Your task to perform on an android device: install app "Microsoft Authenticator" Image 0: 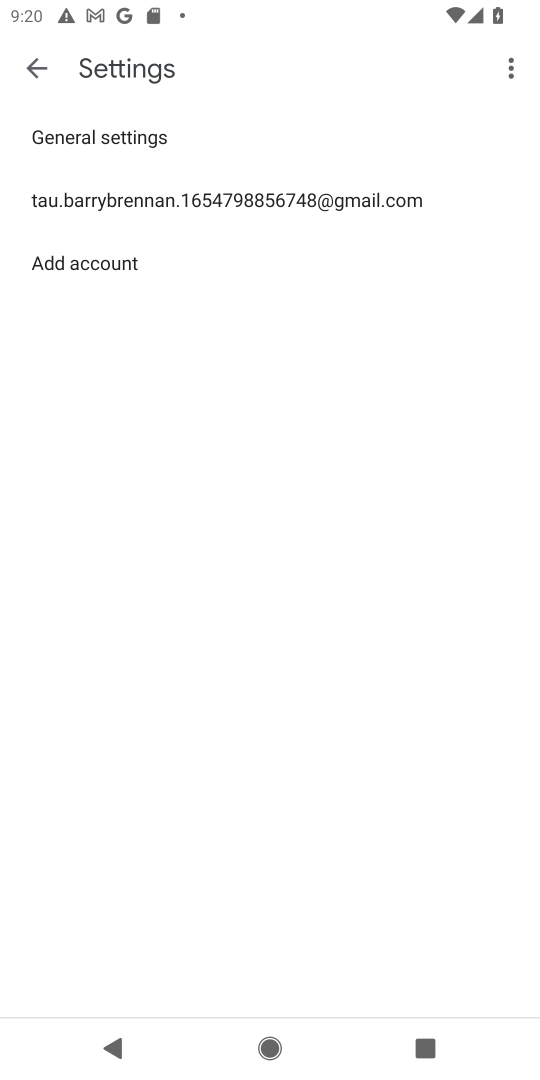
Step 0: press home button
Your task to perform on an android device: install app "Microsoft Authenticator" Image 1: 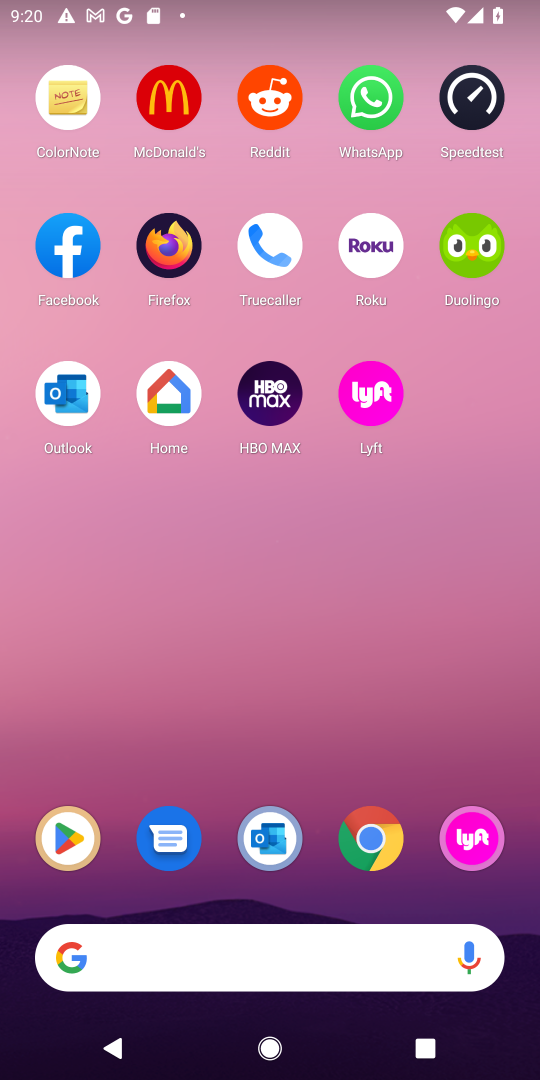
Step 1: drag from (294, 583) to (323, 147)
Your task to perform on an android device: install app "Microsoft Authenticator" Image 2: 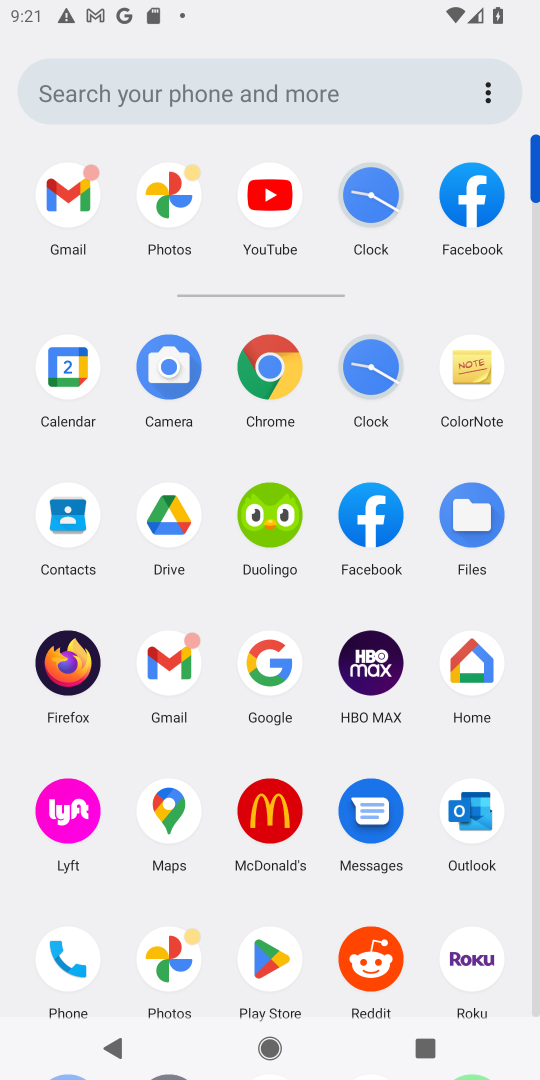
Step 2: click (270, 955)
Your task to perform on an android device: install app "Microsoft Authenticator" Image 3: 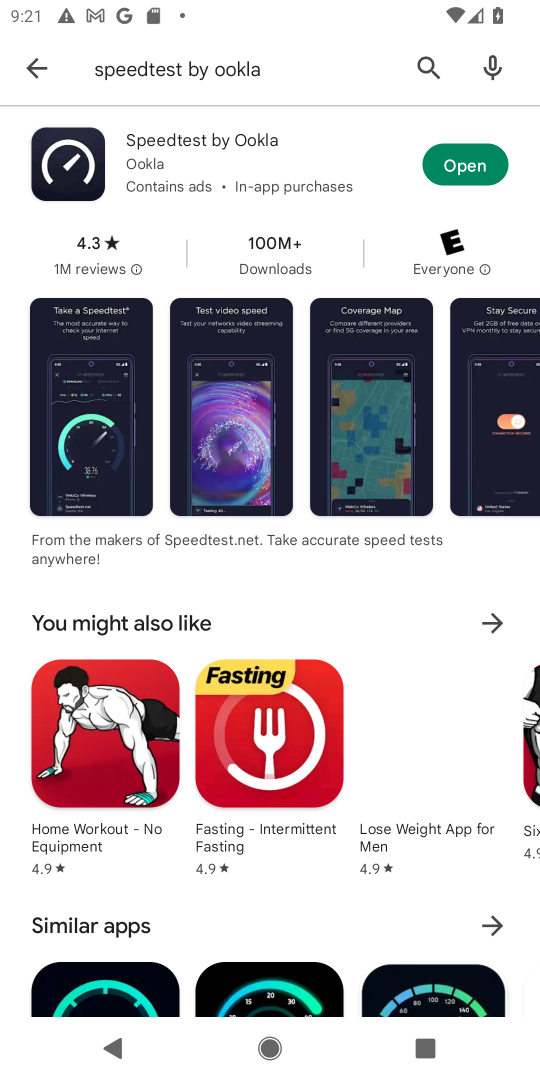
Step 3: click (426, 60)
Your task to perform on an android device: install app "Microsoft Authenticator" Image 4: 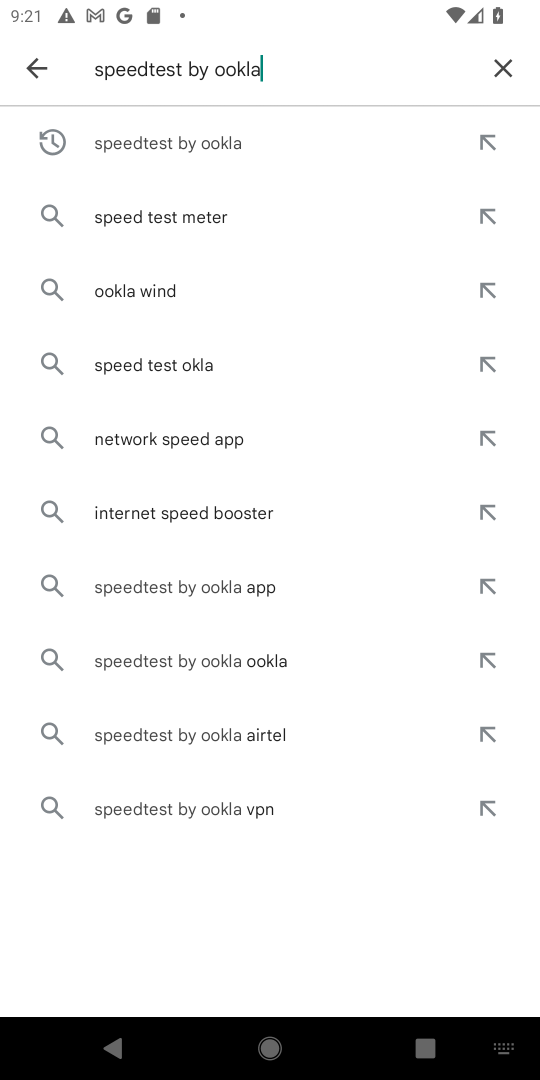
Step 4: click (497, 67)
Your task to perform on an android device: install app "Microsoft Authenticator" Image 5: 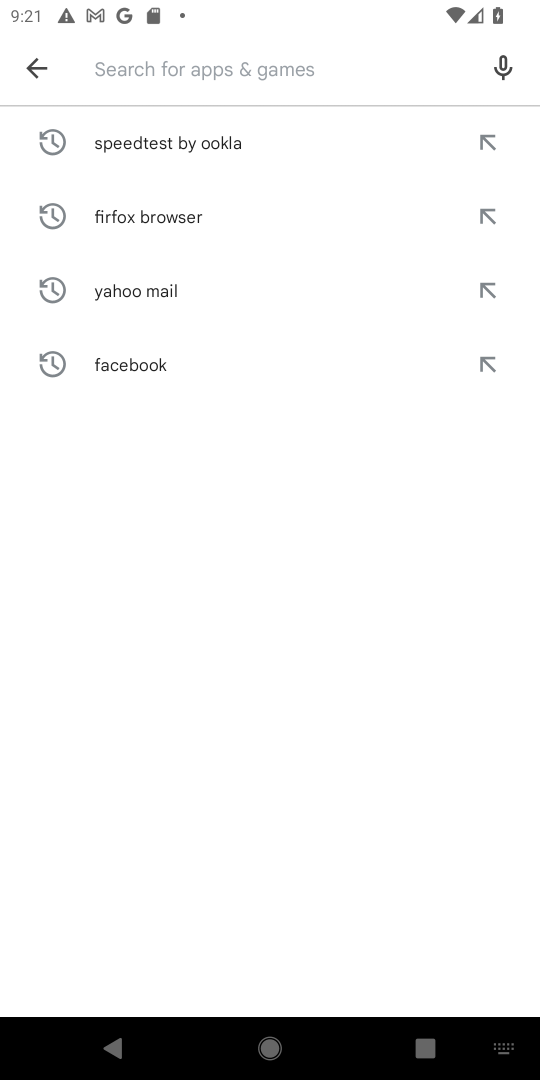
Step 5: click (346, 74)
Your task to perform on an android device: install app "Microsoft Authenticator" Image 6: 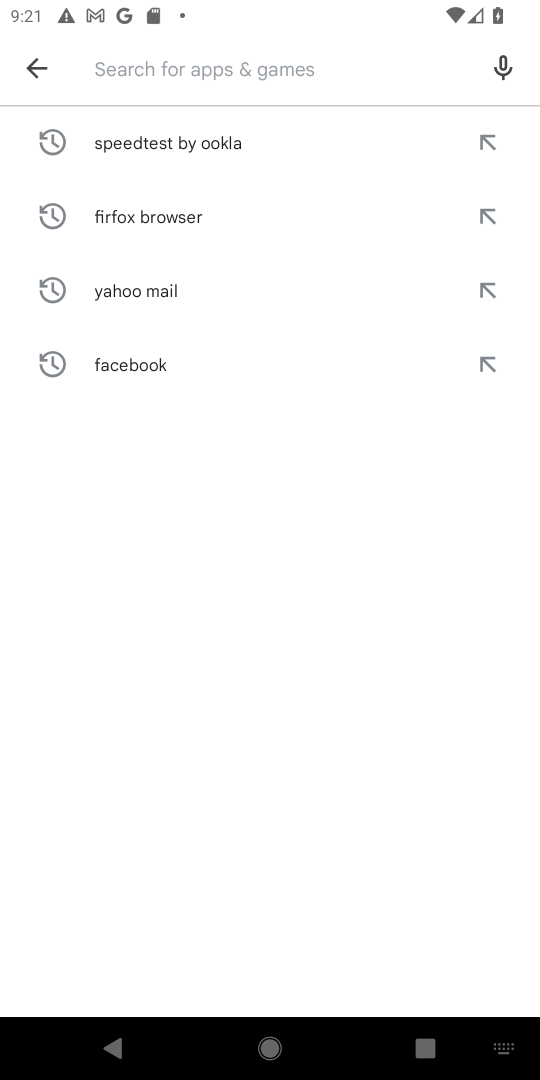
Step 6: type "microsoft authenticator "
Your task to perform on an android device: install app "Microsoft Authenticator" Image 7: 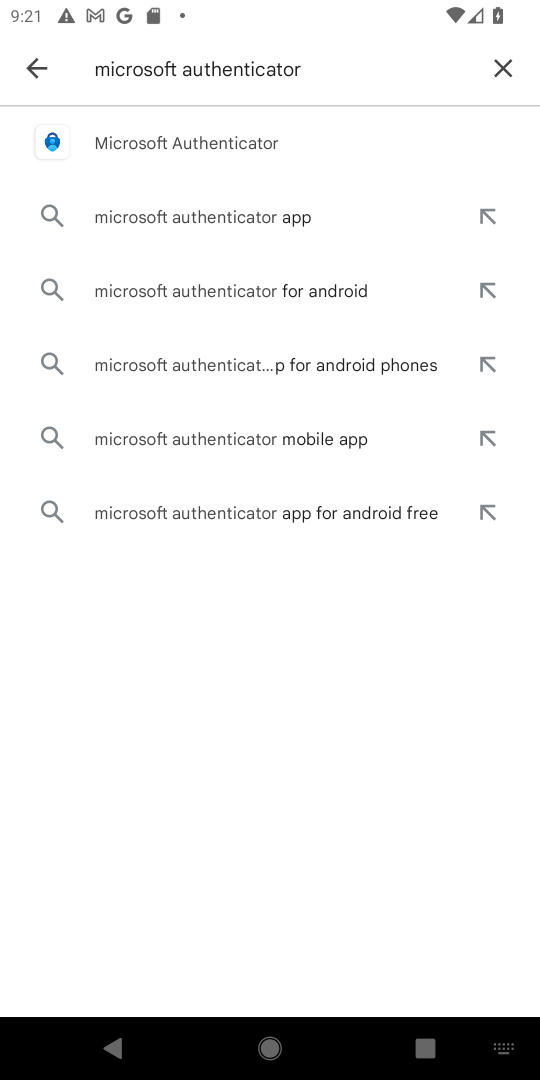
Step 7: click (262, 129)
Your task to perform on an android device: install app "Microsoft Authenticator" Image 8: 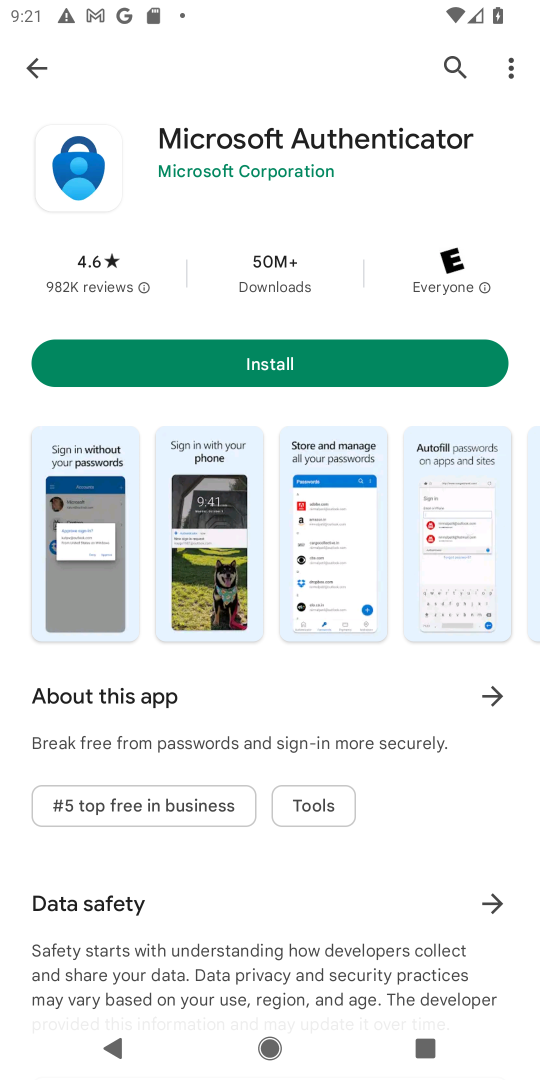
Step 8: click (348, 372)
Your task to perform on an android device: install app "Microsoft Authenticator" Image 9: 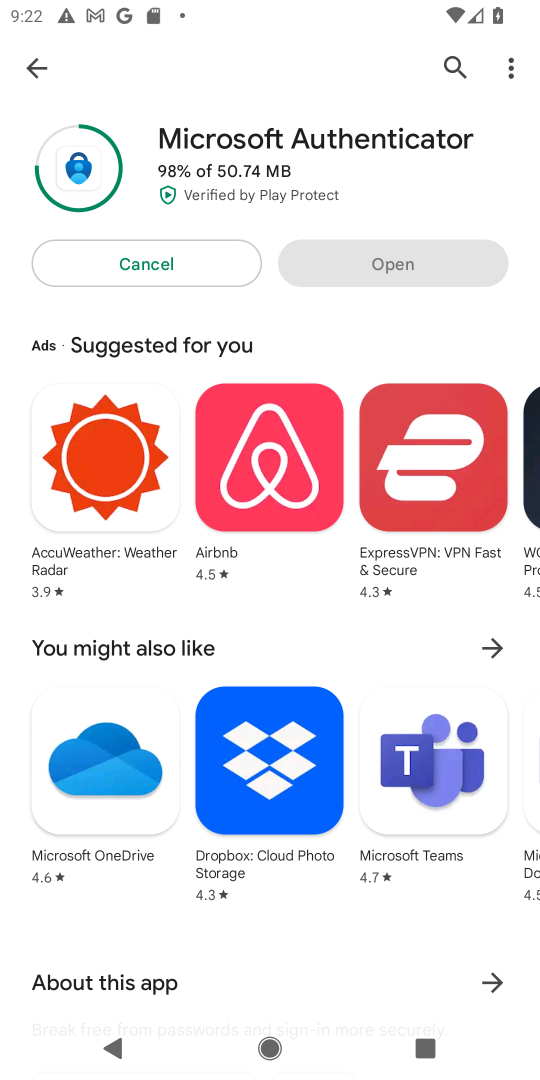
Step 9: task complete